Your task to perform on an android device: turn pop-ups on in chrome Image 0: 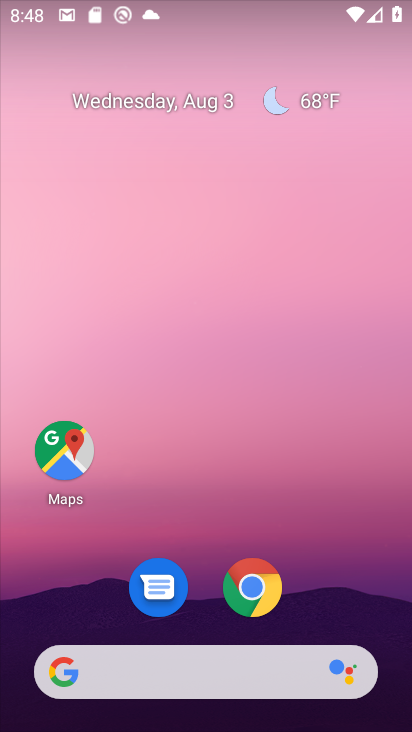
Step 0: drag from (340, 565) to (325, 1)
Your task to perform on an android device: turn pop-ups on in chrome Image 1: 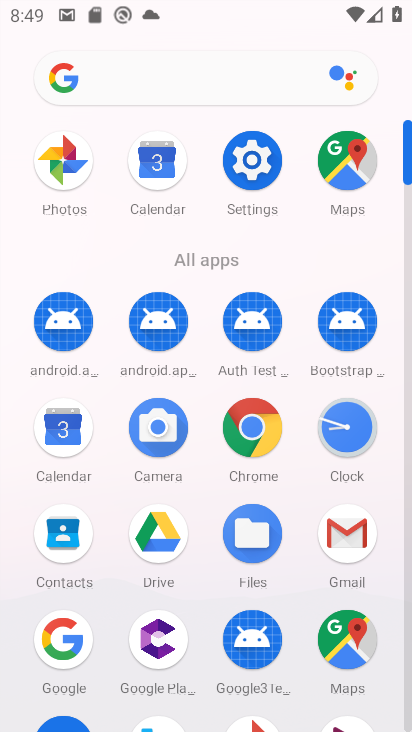
Step 1: click (258, 412)
Your task to perform on an android device: turn pop-ups on in chrome Image 2: 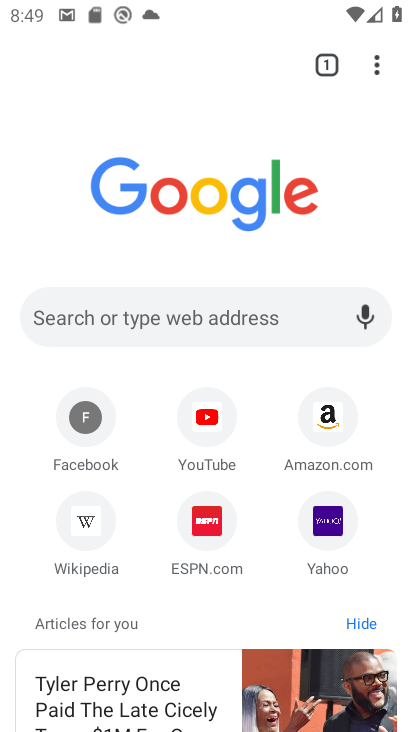
Step 2: drag from (377, 51) to (156, 541)
Your task to perform on an android device: turn pop-ups on in chrome Image 3: 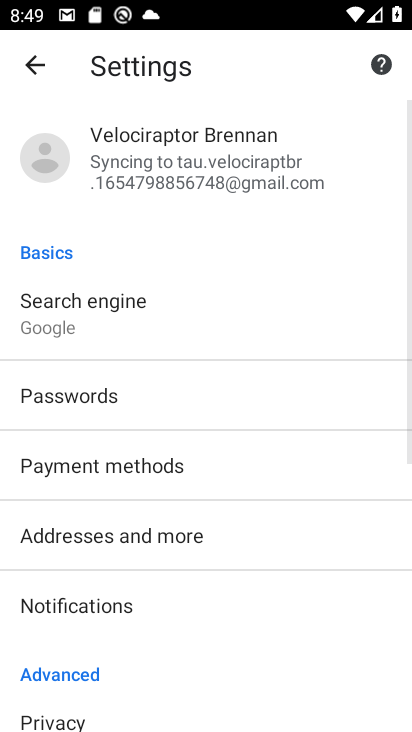
Step 3: drag from (321, 661) to (355, 340)
Your task to perform on an android device: turn pop-ups on in chrome Image 4: 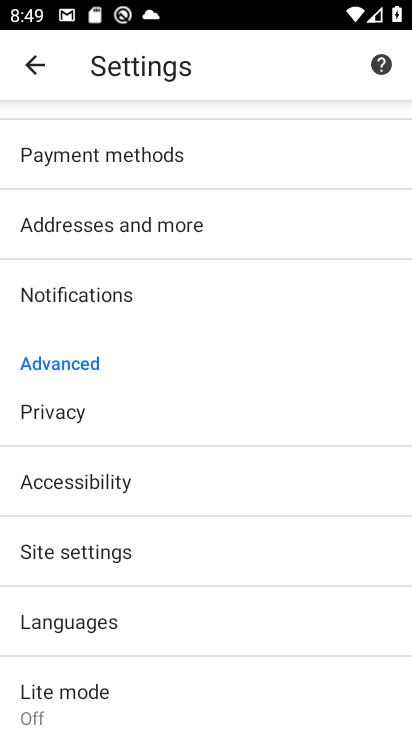
Step 4: click (104, 568)
Your task to perform on an android device: turn pop-ups on in chrome Image 5: 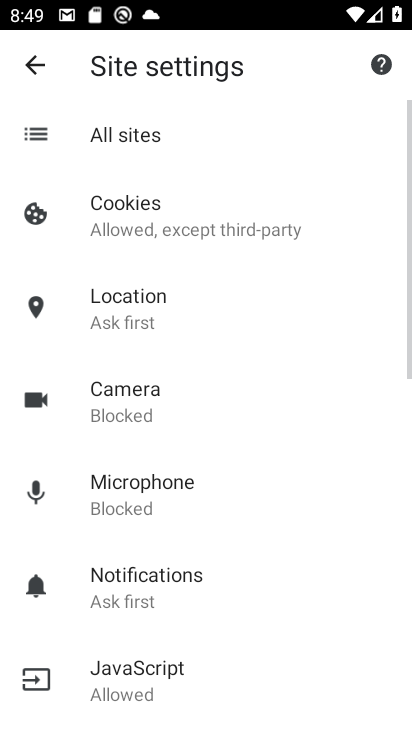
Step 5: drag from (173, 648) to (256, 329)
Your task to perform on an android device: turn pop-ups on in chrome Image 6: 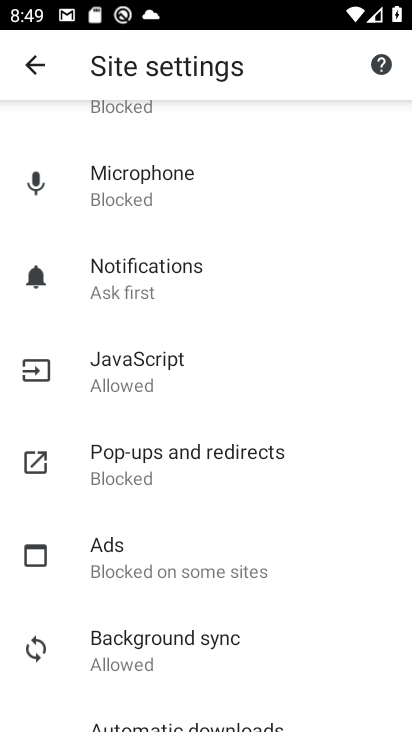
Step 6: click (137, 454)
Your task to perform on an android device: turn pop-ups on in chrome Image 7: 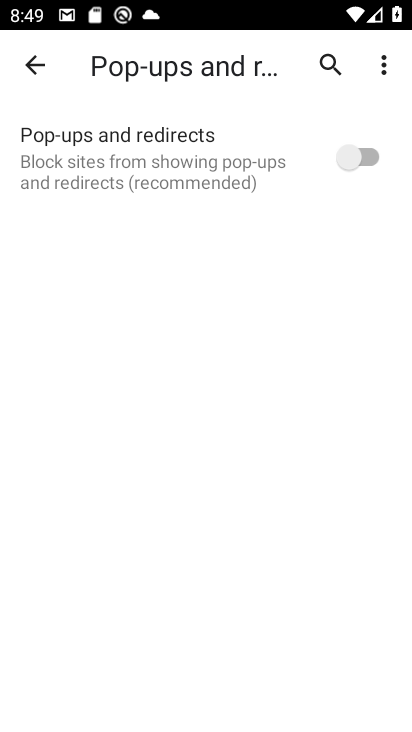
Step 7: click (322, 129)
Your task to perform on an android device: turn pop-ups on in chrome Image 8: 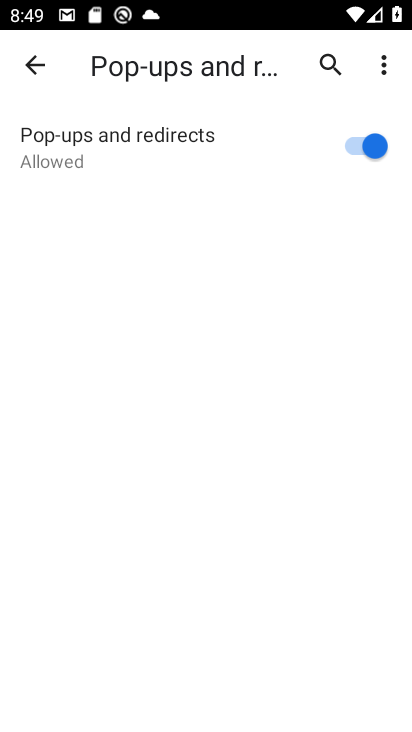
Step 8: task complete